Your task to perform on an android device: turn off wifi Image 0: 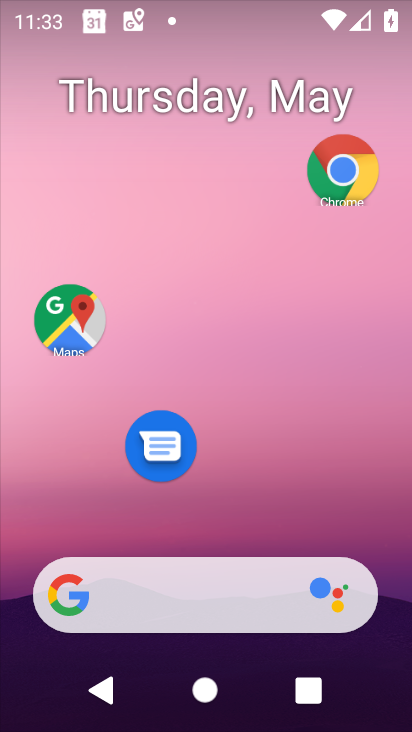
Step 0: drag from (212, 612) to (220, 6)
Your task to perform on an android device: turn off wifi Image 1: 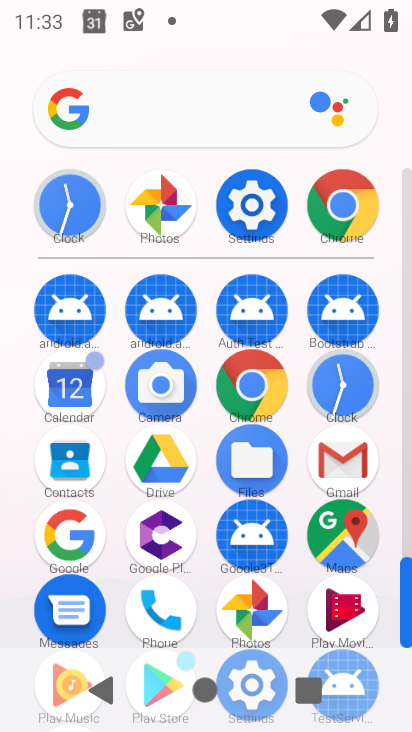
Step 1: click (255, 210)
Your task to perform on an android device: turn off wifi Image 2: 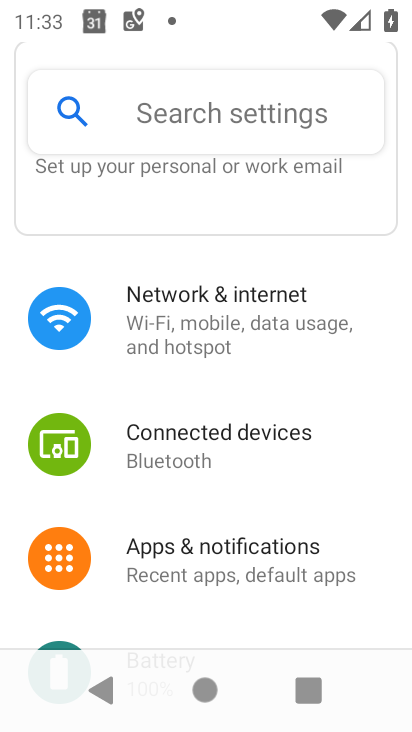
Step 2: click (243, 315)
Your task to perform on an android device: turn off wifi Image 3: 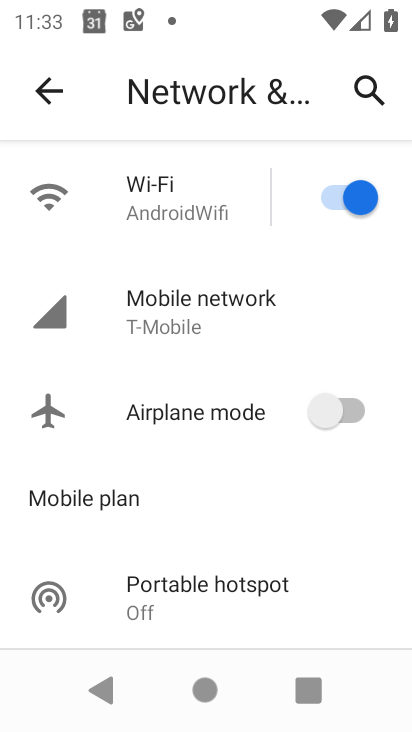
Step 3: click (337, 202)
Your task to perform on an android device: turn off wifi Image 4: 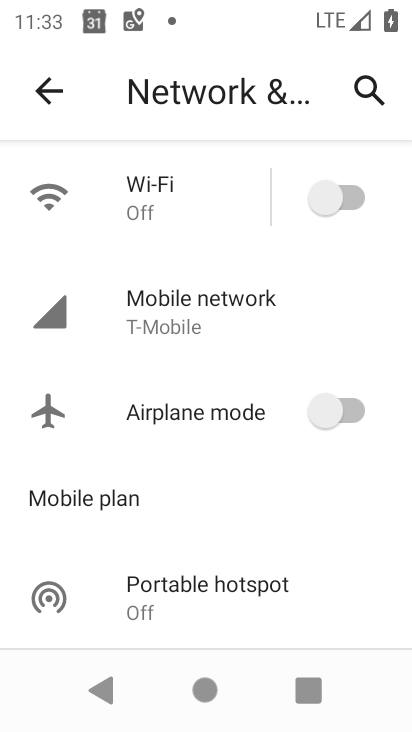
Step 4: task complete